Your task to perform on an android device: Set the phone to "Do not disturb". Image 0: 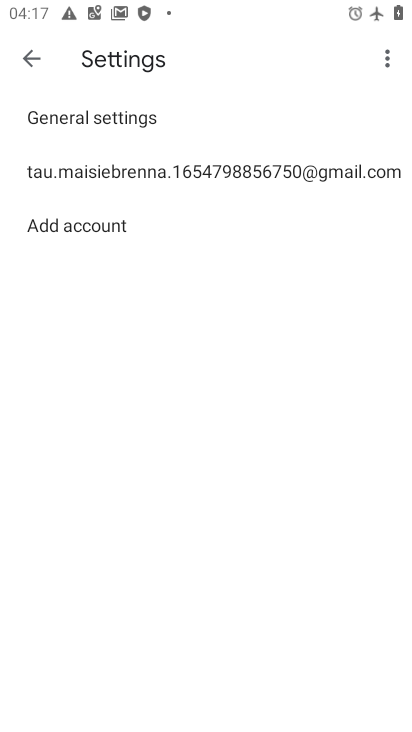
Step 0: press home button
Your task to perform on an android device: Set the phone to "Do not disturb". Image 1: 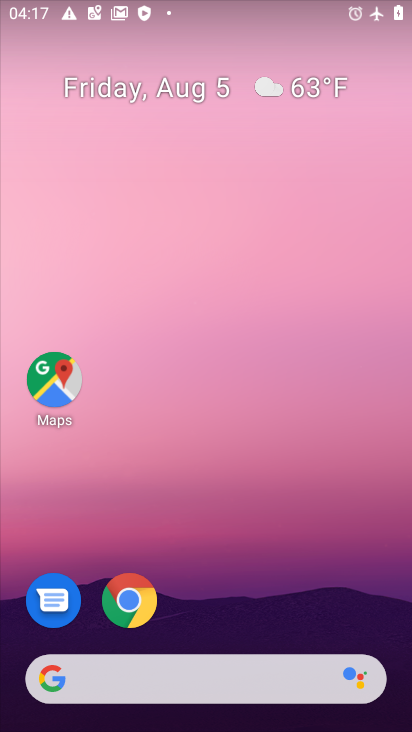
Step 1: drag from (173, 674) to (261, 45)
Your task to perform on an android device: Set the phone to "Do not disturb". Image 2: 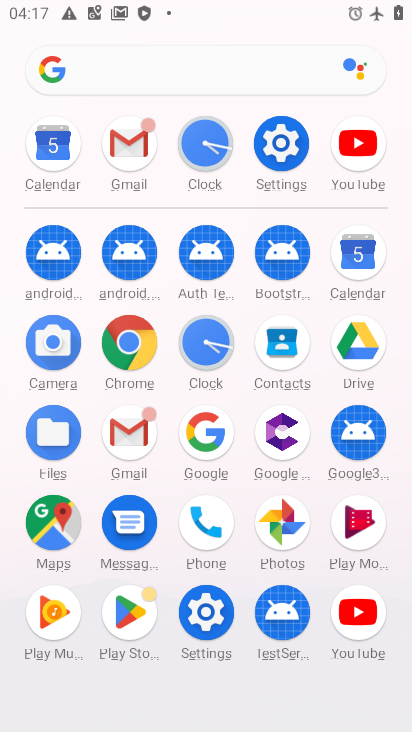
Step 2: click (281, 142)
Your task to perform on an android device: Set the phone to "Do not disturb". Image 3: 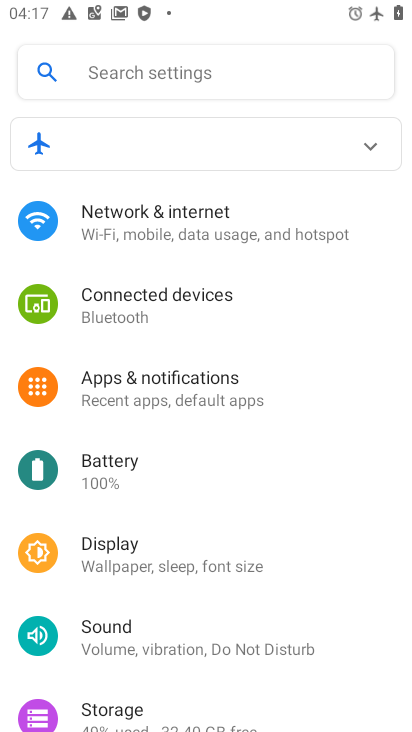
Step 3: drag from (168, 624) to (308, 426)
Your task to perform on an android device: Set the phone to "Do not disturb". Image 4: 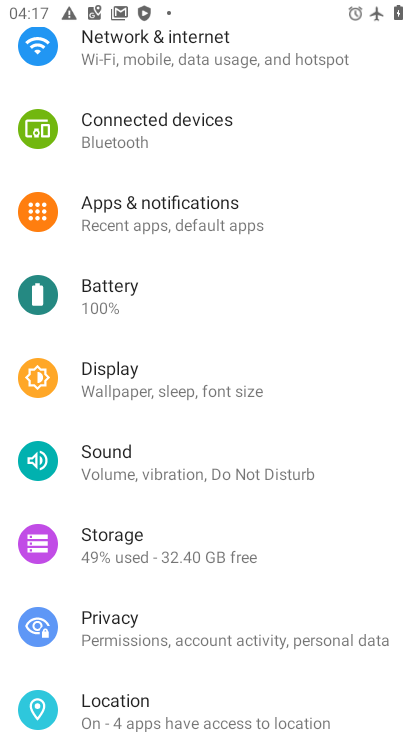
Step 4: click (308, 468)
Your task to perform on an android device: Set the phone to "Do not disturb". Image 5: 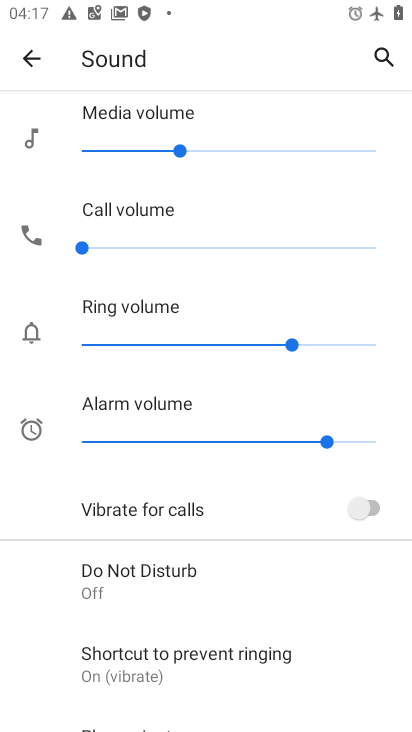
Step 5: click (185, 577)
Your task to perform on an android device: Set the phone to "Do not disturb". Image 6: 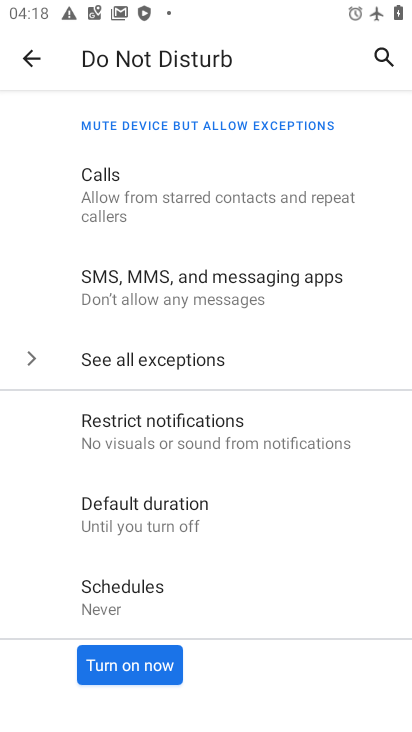
Step 6: click (131, 661)
Your task to perform on an android device: Set the phone to "Do not disturb". Image 7: 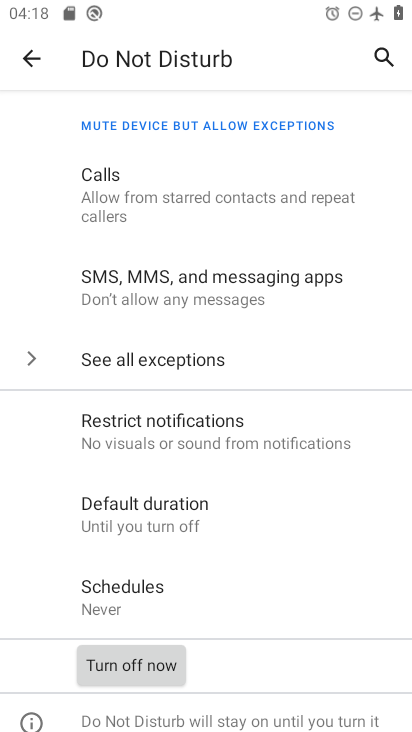
Step 7: task complete